Your task to perform on an android device: toggle data saver in the chrome app Image 0: 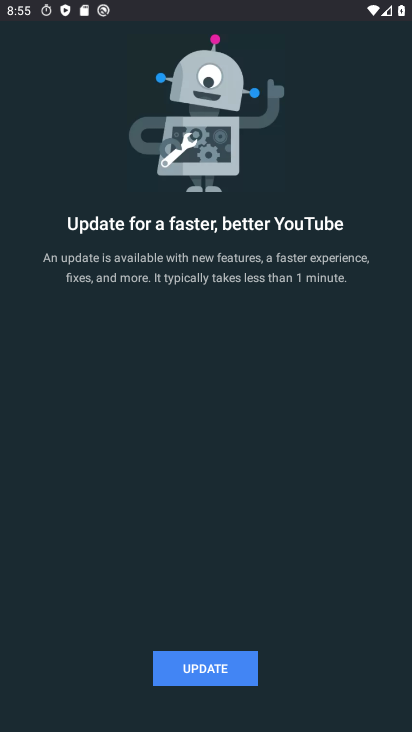
Step 0: press home button
Your task to perform on an android device: toggle data saver in the chrome app Image 1: 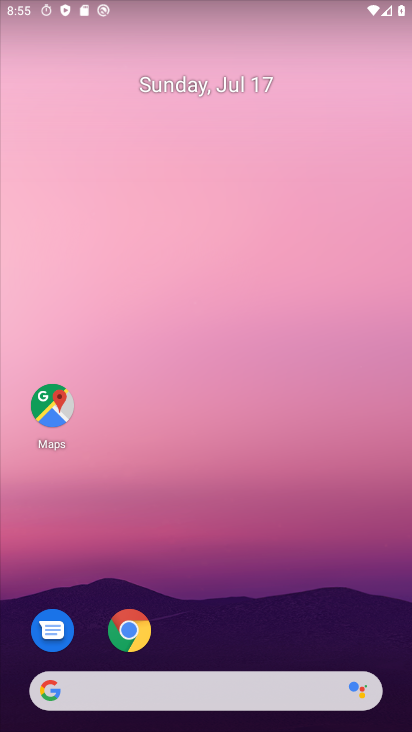
Step 1: click (140, 625)
Your task to perform on an android device: toggle data saver in the chrome app Image 2: 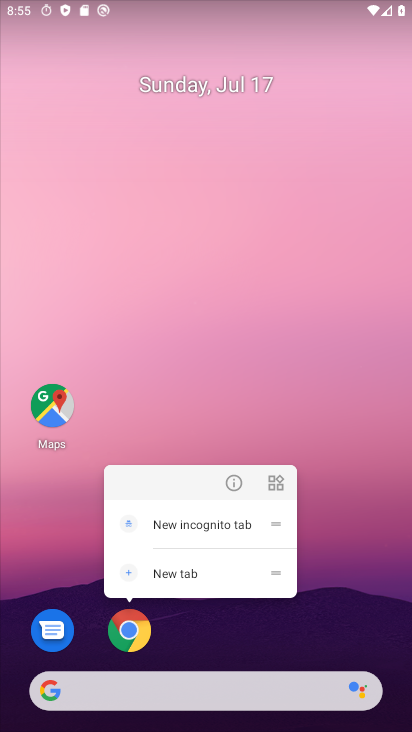
Step 2: click (121, 660)
Your task to perform on an android device: toggle data saver in the chrome app Image 3: 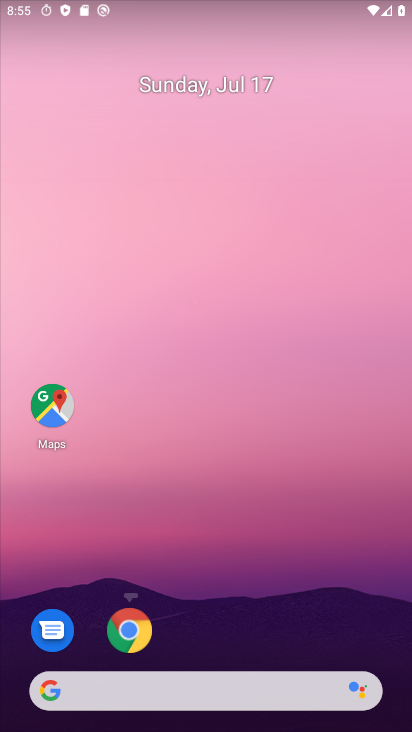
Step 3: click (127, 641)
Your task to perform on an android device: toggle data saver in the chrome app Image 4: 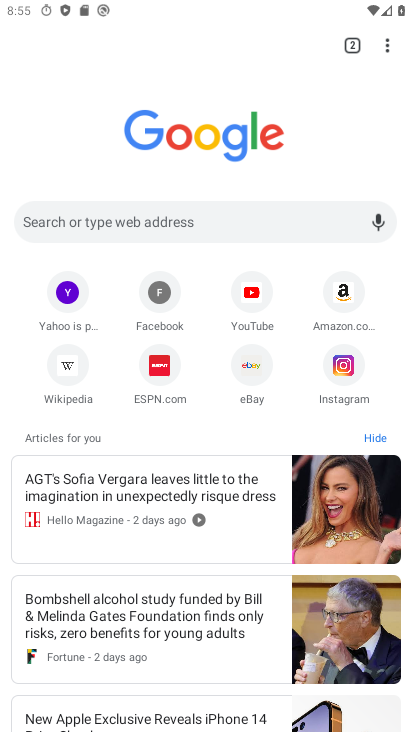
Step 4: click (383, 41)
Your task to perform on an android device: toggle data saver in the chrome app Image 5: 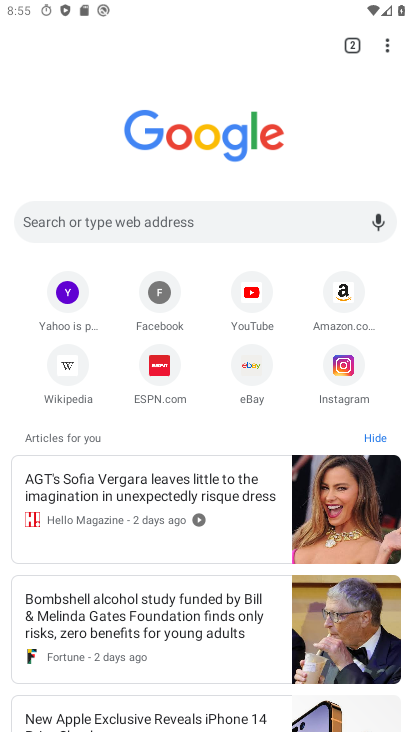
Step 5: click (386, 42)
Your task to perform on an android device: toggle data saver in the chrome app Image 6: 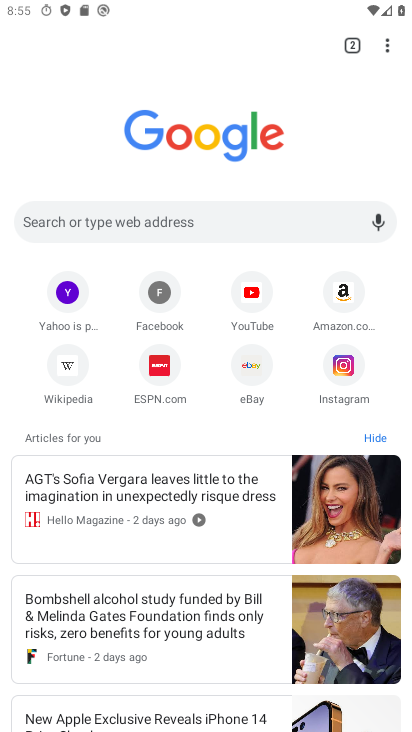
Step 6: click (384, 48)
Your task to perform on an android device: toggle data saver in the chrome app Image 7: 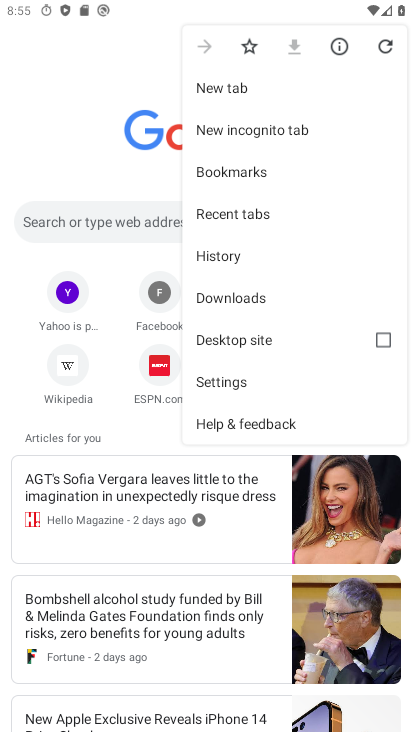
Step 7: click (222, 375)
Your task to perform on an android device: toggle data saver in the chrome app Image 8: 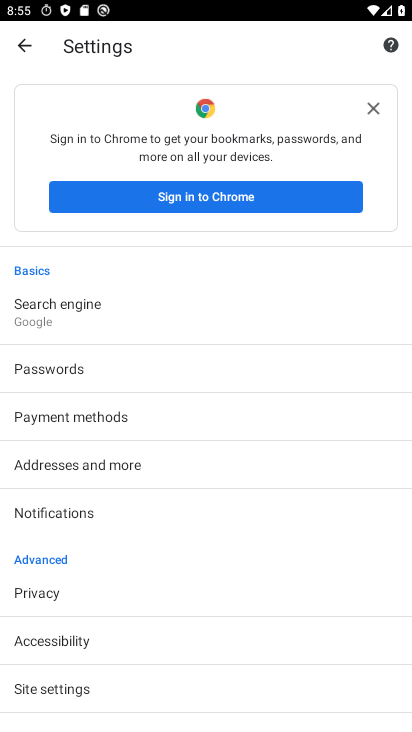
Step 8: drag from (148, 654) to (193, 417)
Your task to perform on an android device: toggle data saver in the chrome app Image 9: 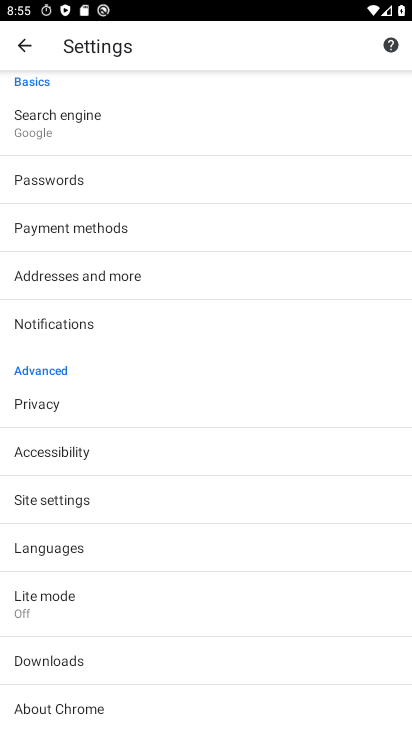
Step 9: drag from (149, 684) to (199, 449)
Your task to perform on an android device: toggle data saver in the chrome app Image 10: 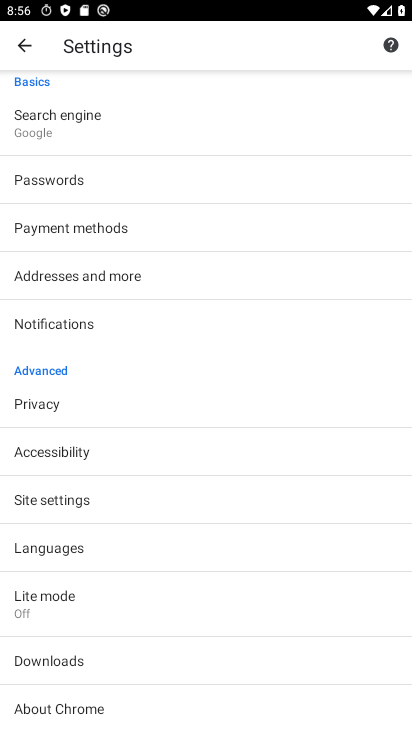
Step 10: click (77, 499)
Your task to perform on an android device: toggle data saver in the chrome app Image 11: 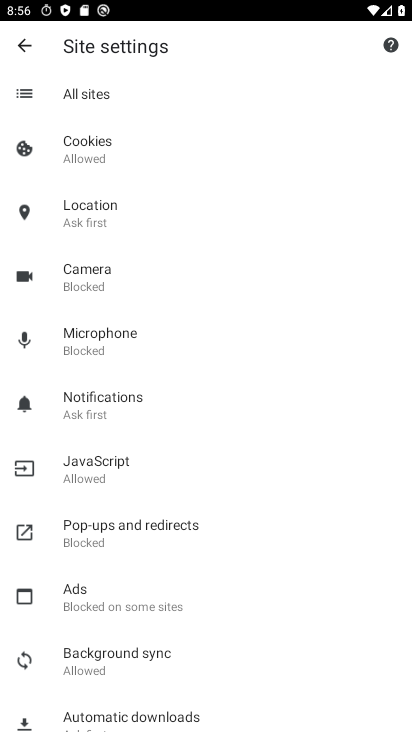
Step 11: task complete